Your task to perform on an android device: turn on bluetooth scan Image 0: 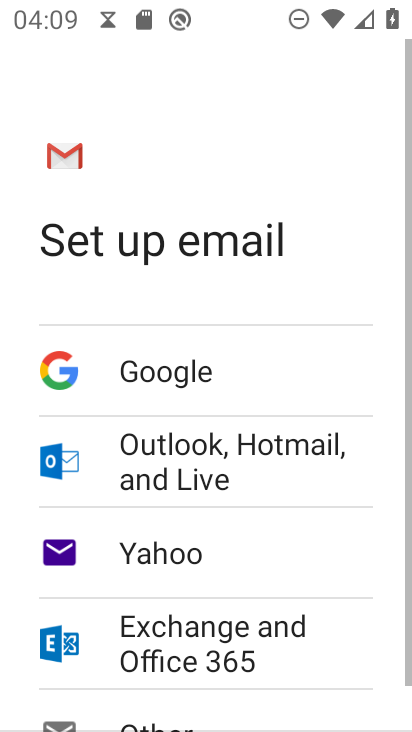
Step 0: press home button
Your task to perform on an android device: turn on bluetooth scan Image 1: 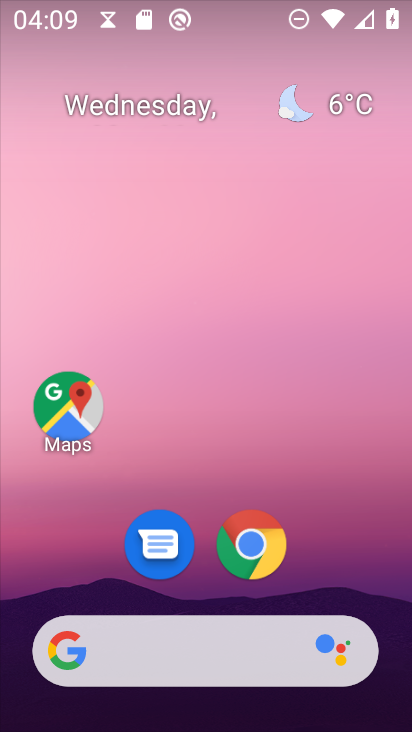
Step 1: drag from (342, 608) to (401, 55)
Your task to perform on an android device: turn on bluetooth scan Image 2: 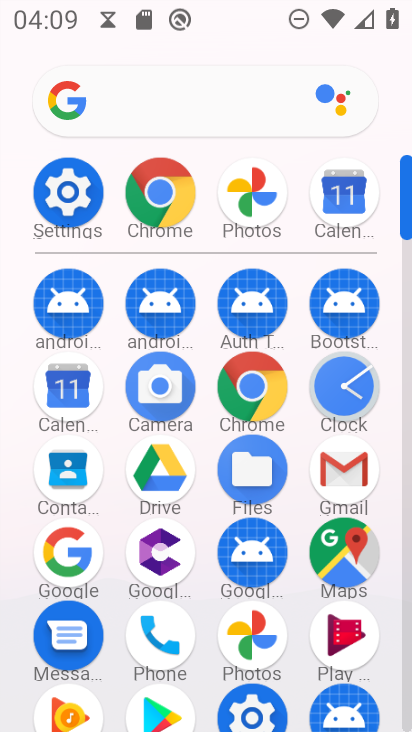
Step 2: click (56, 191)
Your task to perform on an android device: turn on bluetooth scan Image 3: 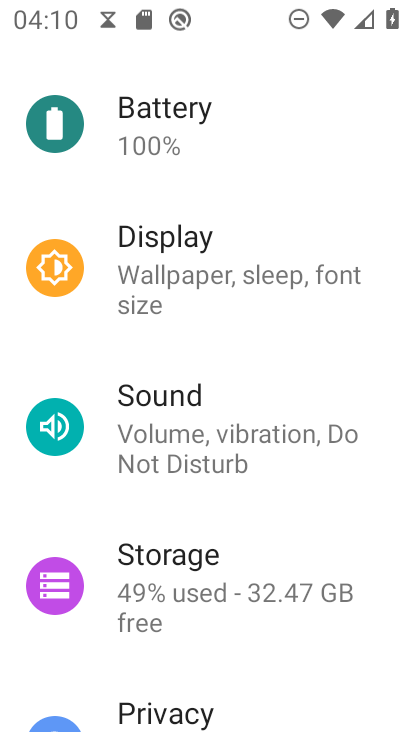
Step 3: drag from (227, 673) to (253, 252)
Your task to perform on an android device: turn on bluetooth scan Image 4: 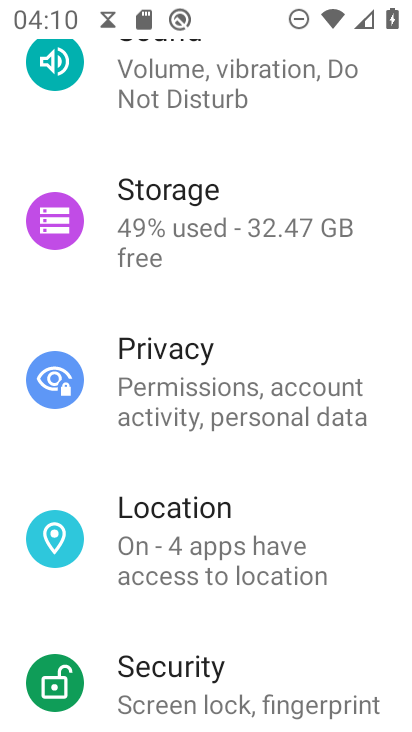
Step 4: click (231, 572)
Your task to perform on an android device: turn on bluetooth scan Image 5: 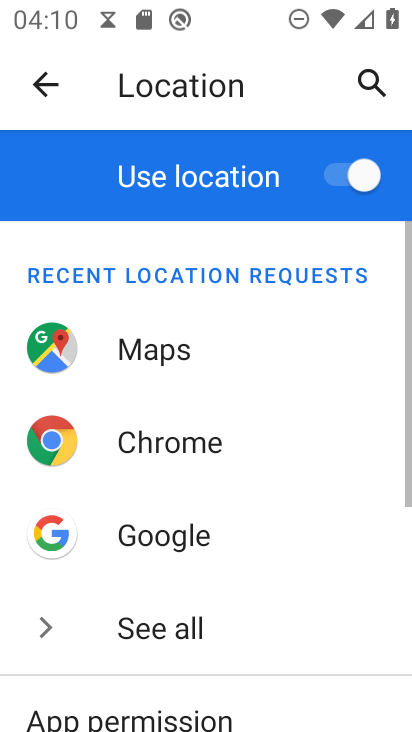
Step 5: drag from (231, 625) to (242, 250)
Your task to perform on an android device: turn on bluetooth scan Image 6: 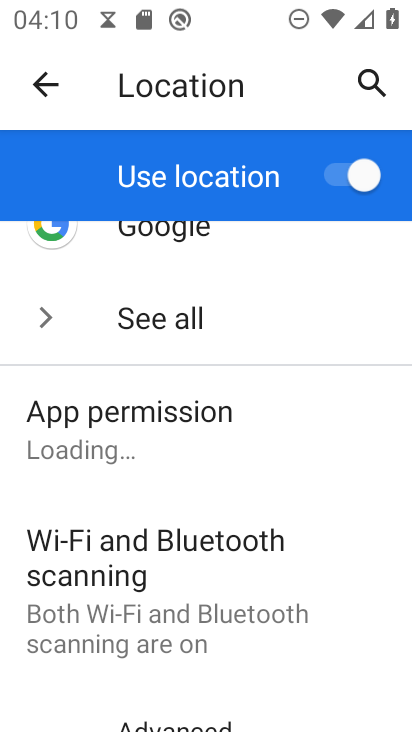
Step 6: click (258, 619)
Your task to perform on an android device: turn on bluetooth scan Image 7: 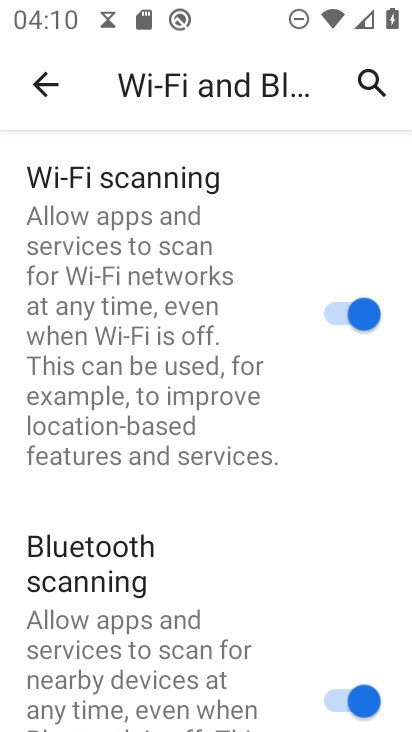
Step 7: task complete